Your task to perform on an android device: Do I have any events this weekend? Image 0: 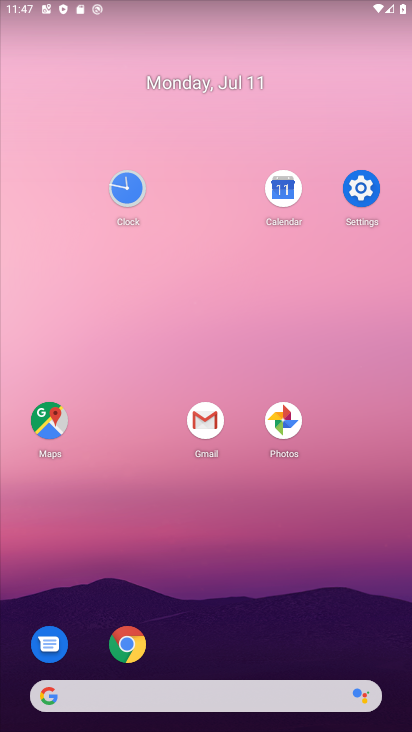
Step 0: click (283, 183)
Your task to perform on an android device: Do I have any events this weekend? Image 1: 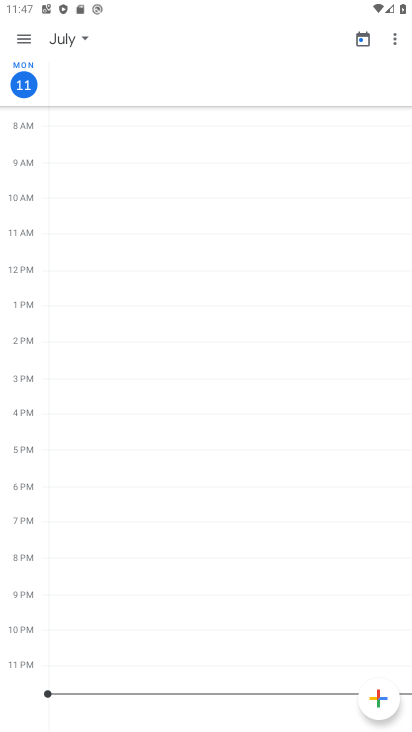
Step 1: click (26, 36)
Your task to perform on an android device: Do I have any events this weekend? Image 2: 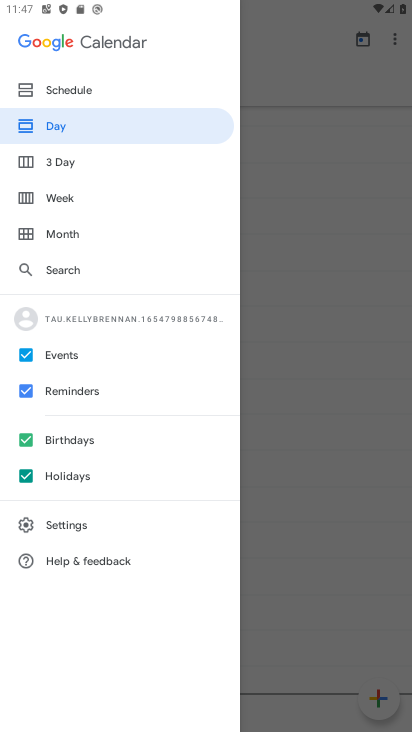
Step 2: click (77, 204)
Your task to perform on an android device: Do I have any events this weekend? Image 3: 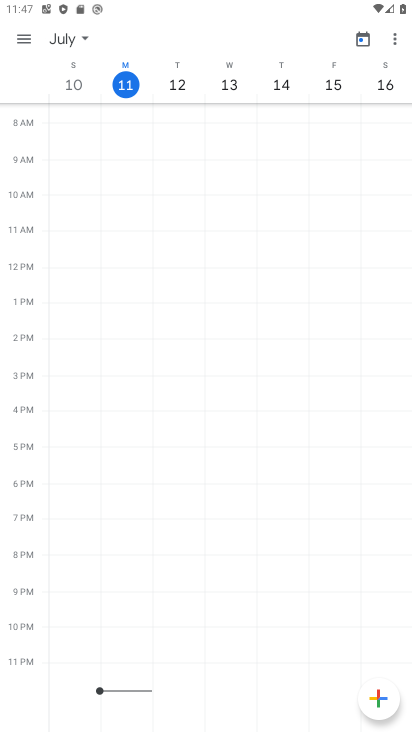
Step 3: task complete